Your task to perform on an android device: Open the calendar and show me this week's events? Image 0: 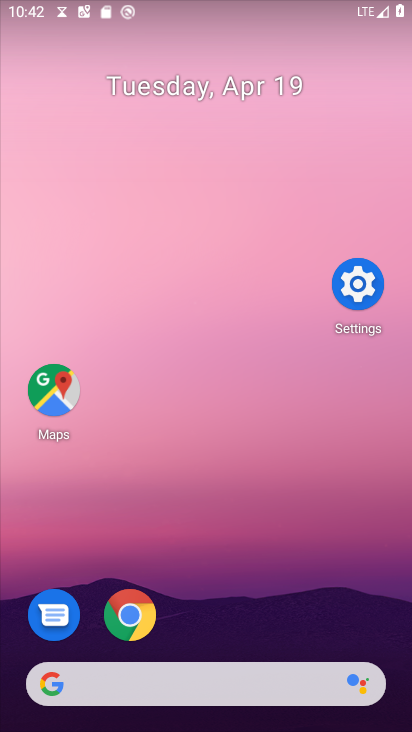
Step 0: click (266, 266)
Your task to perform on an android device: Open the calendar and show me this week's events? Image 1: 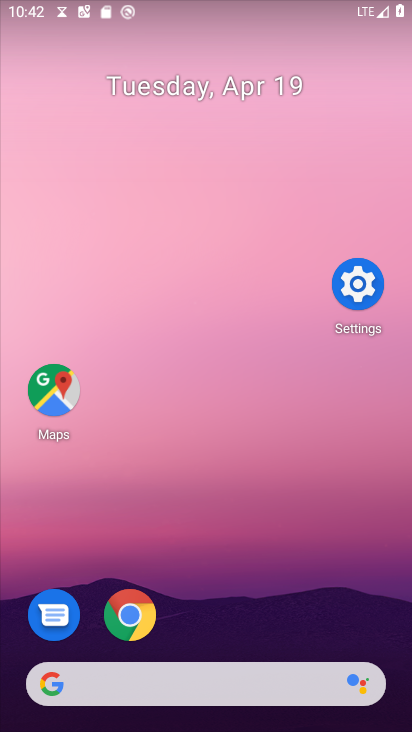
Step 1: drag from (190, 641) to (212, 129)
Your task to perform on an android device: Open the calendar and show me this week's events? Image 2: 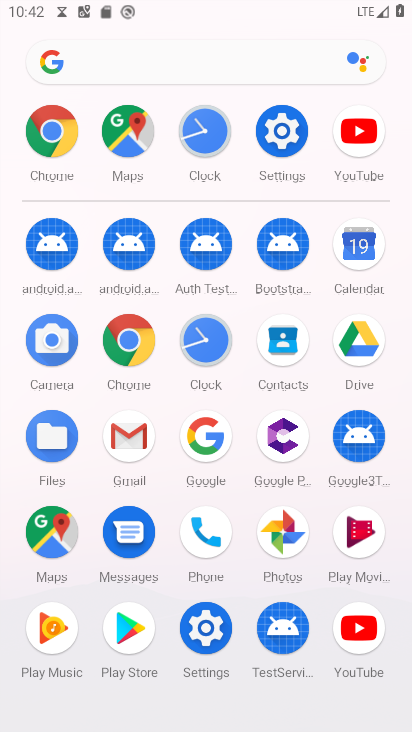
Step 2: click (368, 238)
Your task to perform on an android device: Open the calendar and show me this week's events? Image 3: 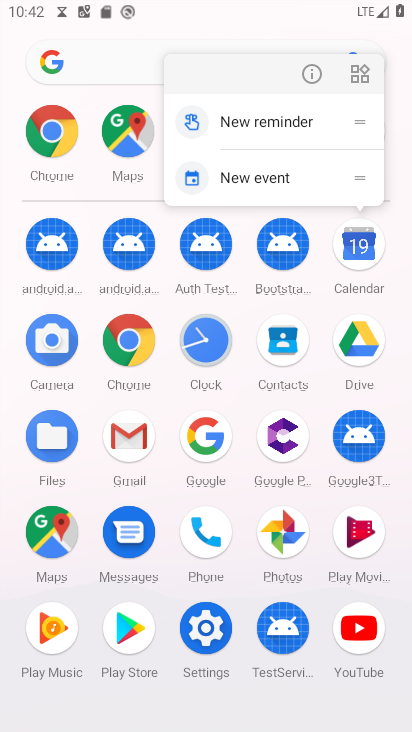
Step 3: click (306, 70)
Your task to perform on an android device: Open the calendar and show me this week's events? Image 4: 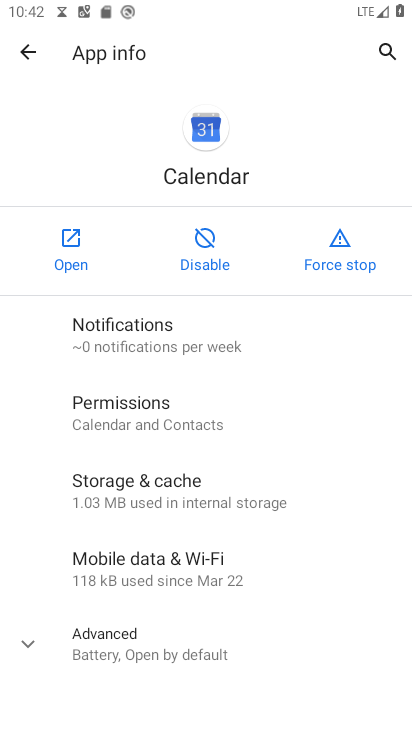
Step 4: click (79, 238)
Your task to perform on an android device: Open the calendar and show me this week's events? Image 5: 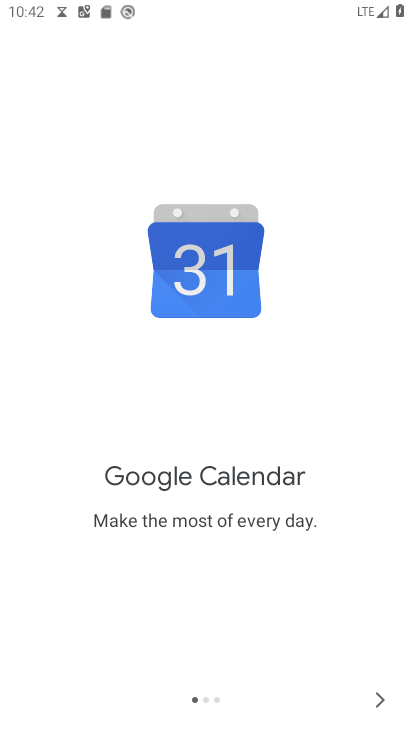
Step 5: drag from (228, 524) to (256, 229)
Your task to perform on an android device: Open the calendar and show me this week's events? Image 6: 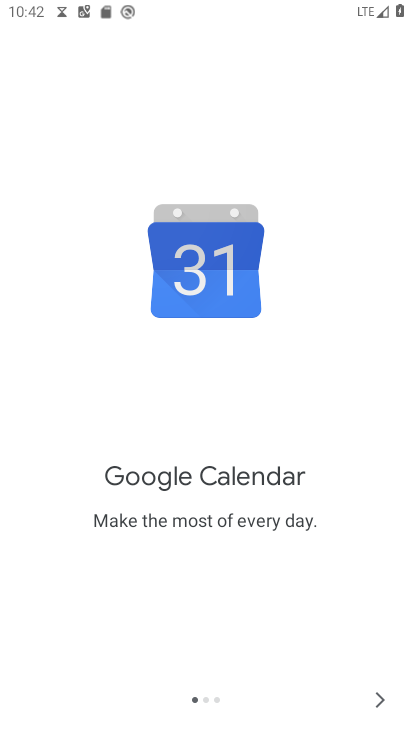
Step 6: click (380, 705)
Your task to perform on an android device: Open the calendar and show me this week's events? Image 7: 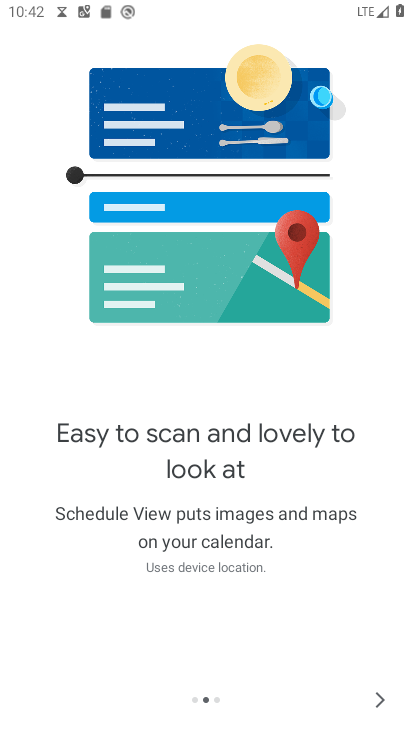
Step 7: click (376, 706)
Your task to perform on an android device: Open the calendar and show me this week's events? Image 8: 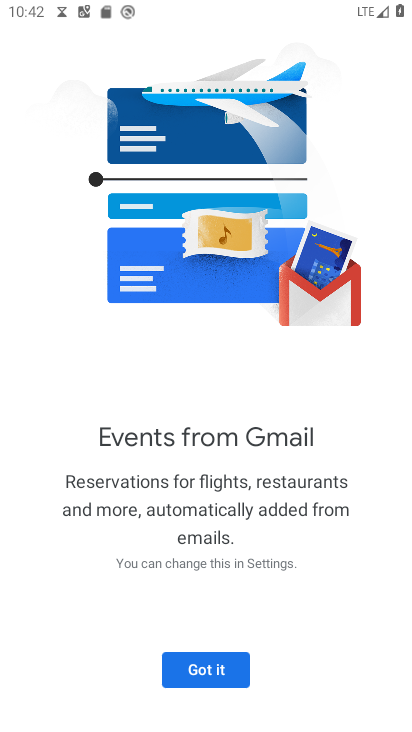
Step 8: click (190, 655)
Your task to perform on an android device: Open the calendar and show me this week's events? Image 9: 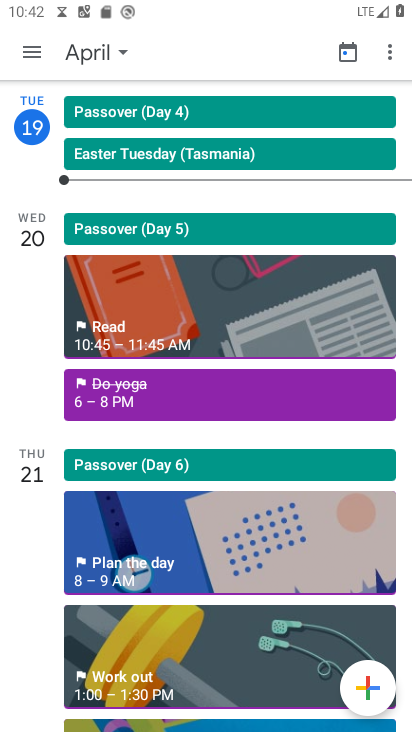
Step 9: drag from (185, 223) to (334, 727)
Your task to perform on an android device: Open the calendar and show me this week's events? Image 10: 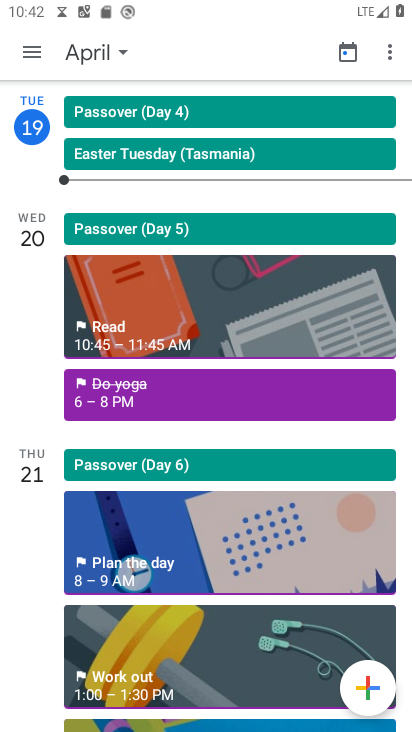
Step 10: click (33, 46)
Your task to perform on an android device: Open the calendar and show me this week's events? Image 11: 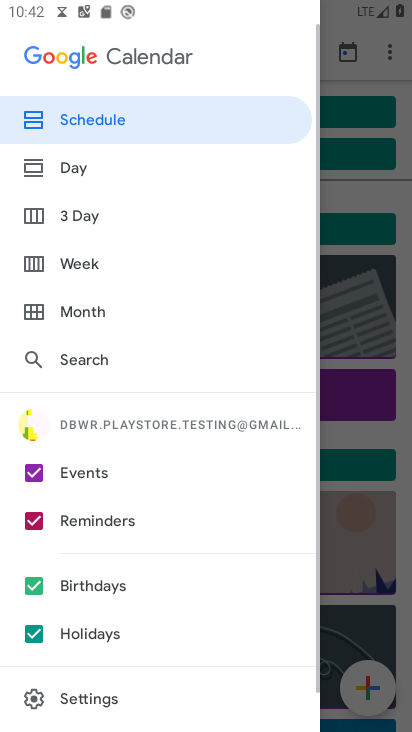
Step 11: drag from (170, 651) to (182, 200)
Your task to perform on an android device: Open the calendar and show me this week's events? Image 12: 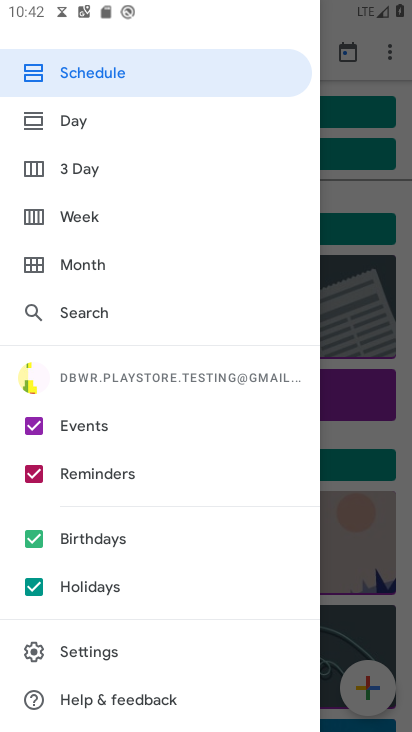
Step 12: click (36, 589)
Your task to perform on an android device: Open the calendar and show me this week's events? Image 13: 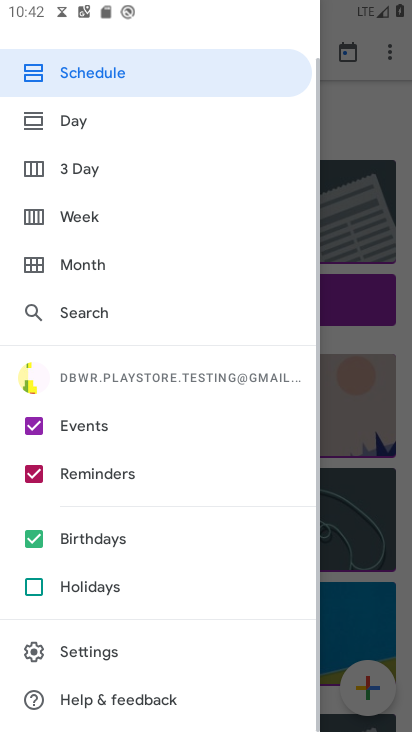
Step 13: click (44, 538)
Your task to perform on an android device: Open the calendar and show me this week's events? Image 14: 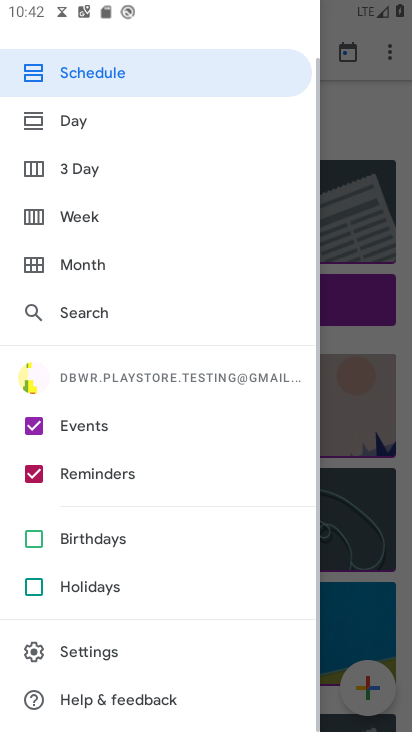
Step 14: click (40, 468)
Your task to perform on an android device: Open the calendar and show me this week's events? Image 15: 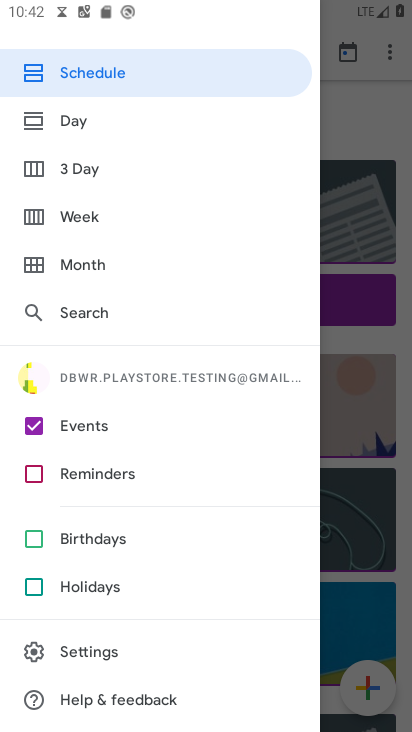
Step 15: task complete